Your task to perform on an android device: What's on my calendar tomorrow? Image 0: 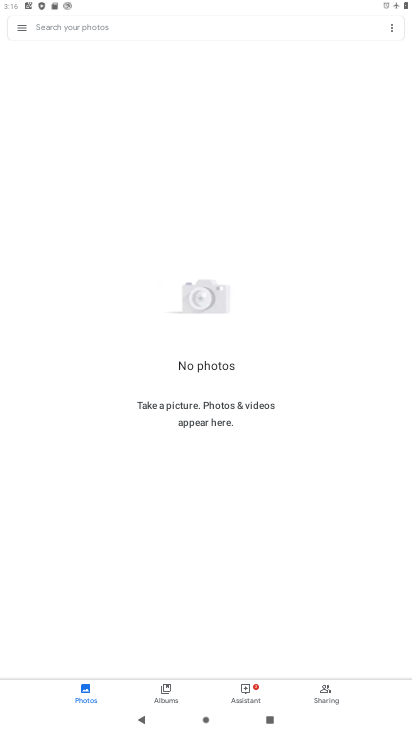
Step 0: press home button
Your task to perform on an android device: What's on my calendar tomorrow? Image 1: 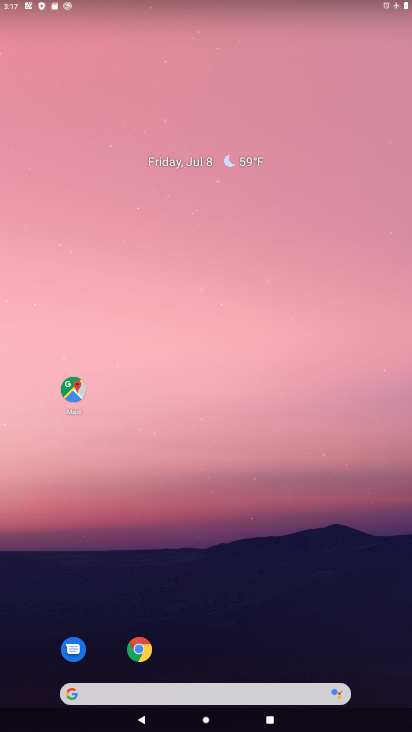
Step 1: click (163, 162)
Your task to perform on an android device: What's on my calendar tomorrow? Image 2: 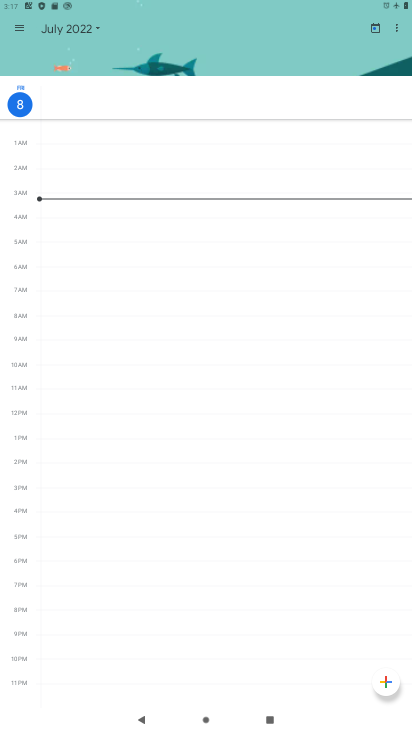
Step 2: click (69, 25)
Your task to perform on an android device: What's on my calendar tomorrow? Image 3: 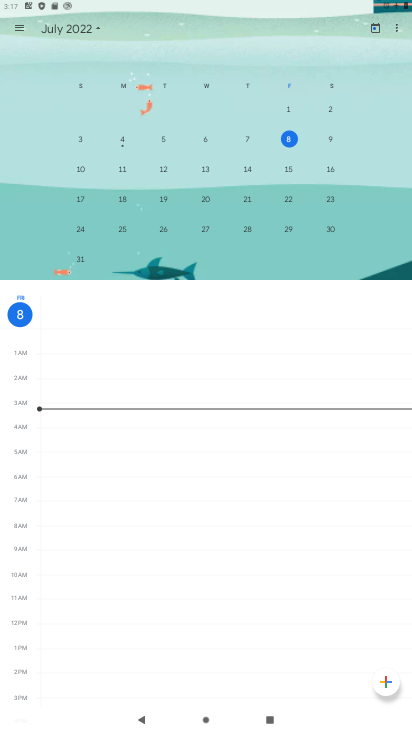
Step 3: click (330, 136)
Your task to perform on an android device: What's on my calendar tomorrow? Image 4: 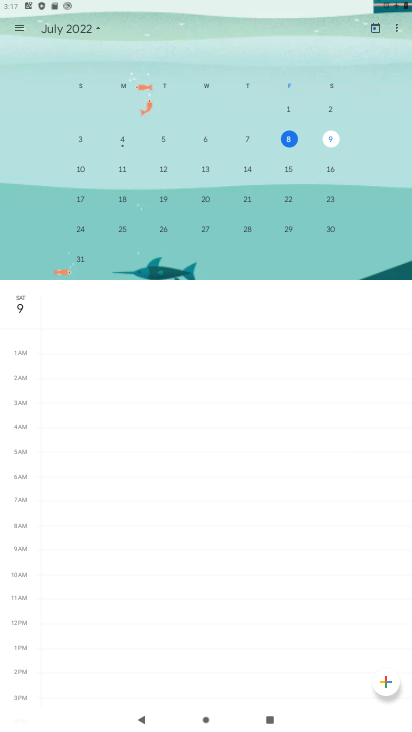
Step 4: task complete